Your task to perform on an android device: toggle wifi Image 0: 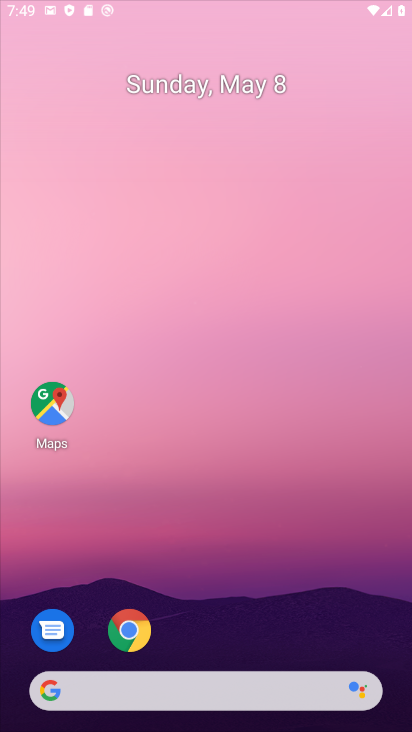
Step 0: click (138, 641)
Your task to perform on an android device: toggle wifi Image 1: 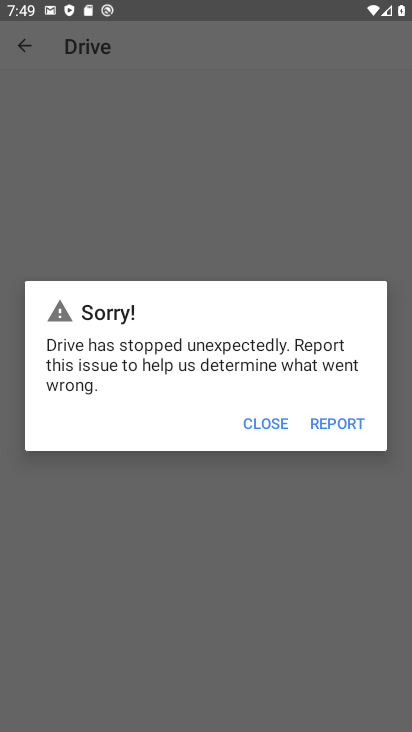
Step 1: press home button
Your task to perform on an android device: toggle wifi Image 2: 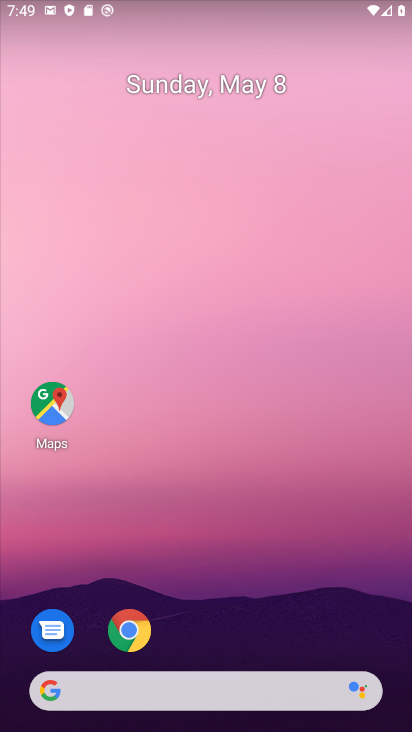
Step 2: drag from (253, 657) to (229, 52)
Your task to perform on an android device: toggle wifi Image 3: 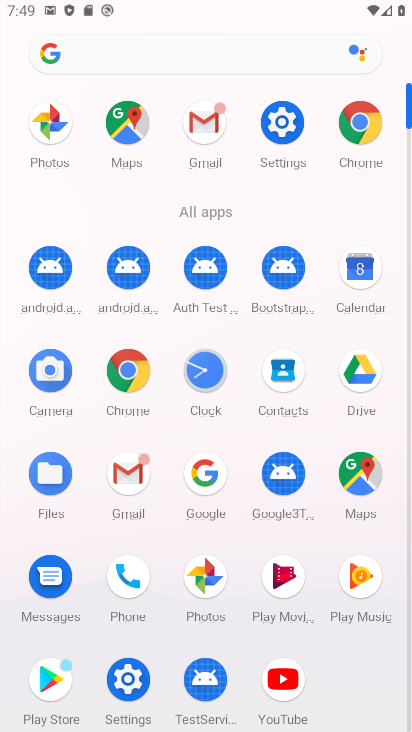
Step 3: click (272, 128)
Your task to perform on an android device: toggle wifi Image 4: 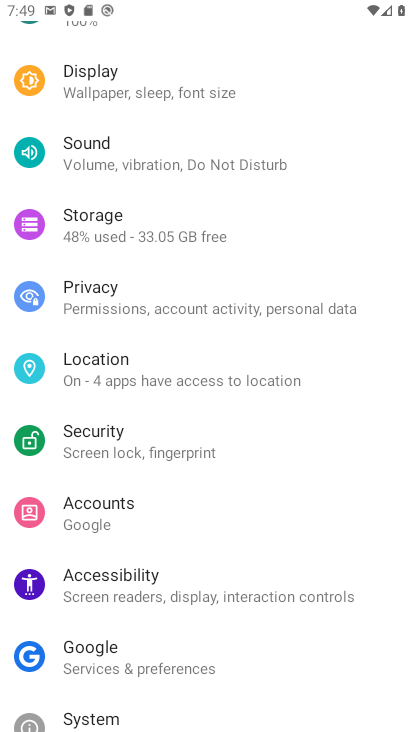
Step 4: drag from (193, 114) to (305, 728)
Your task to perform on an android device: toggle wifi Image 5: 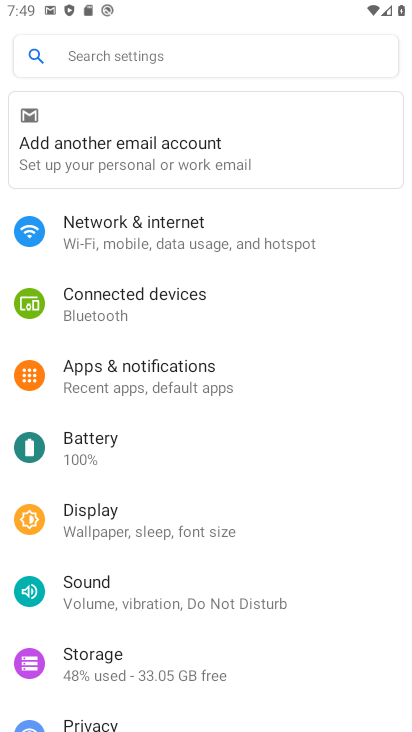
Step 5: click (75, 241)
Your task to perform on an android device: toggle wifi Image 6: 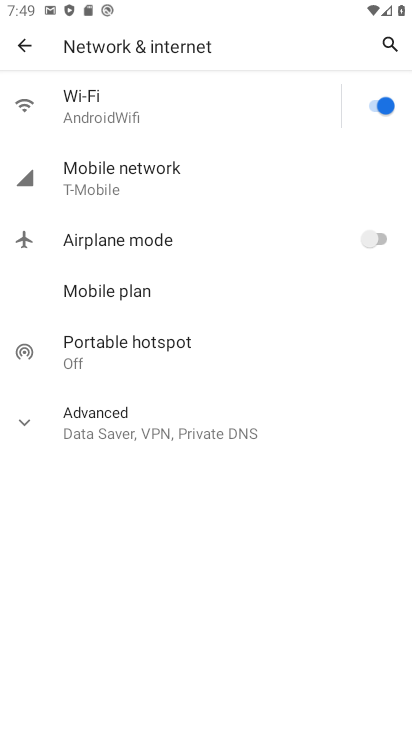
Step 6: click (64, 94)
Your task to perform on an android device: toggle wifi Image 7: 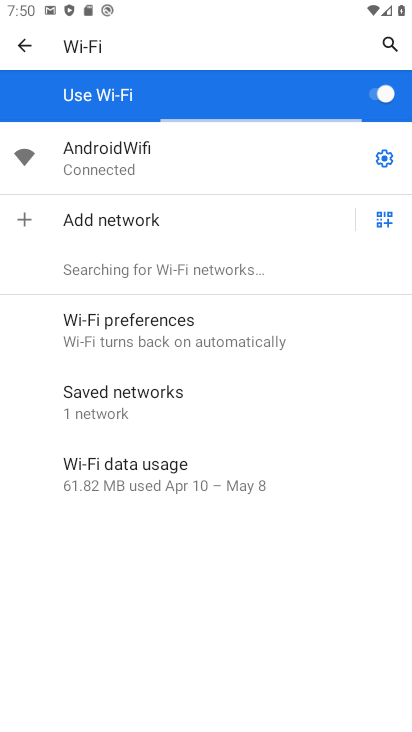
Step 7: task complete